Your task to perform on an android device: Show me popular videos on Youtube Image 0: 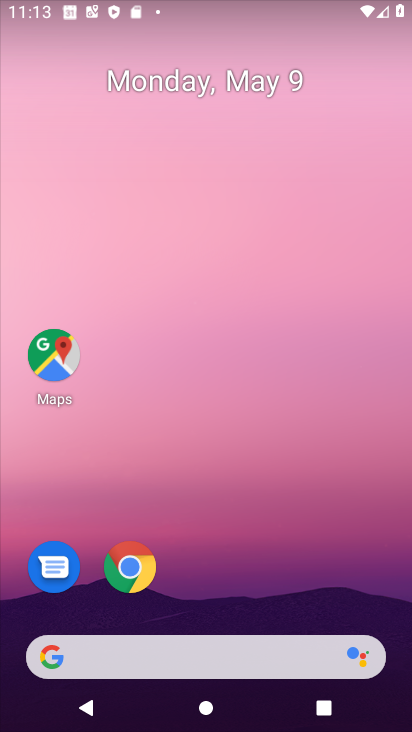
Step 0: drag from (208, 640) to (181, 122)
Your task to perform on an android device: Show me popular videos on Youtube Image 1: 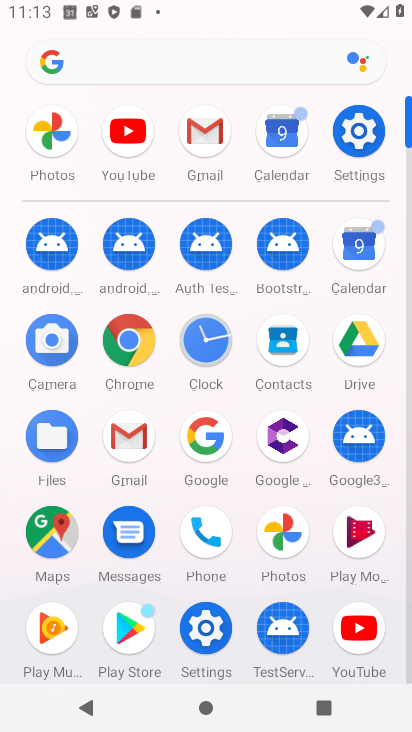
Step 1: click (359, 619)
Your task to perform on an android device: Show me popular videos on Youtube Image 2: 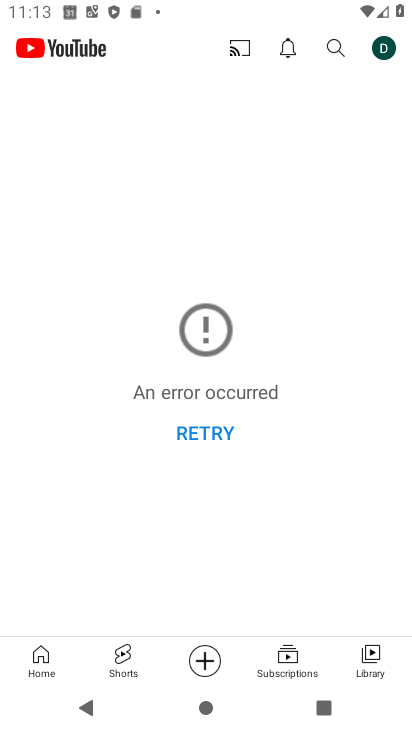
Step 2: click (45, 665)
Your task to perform on an android device: Show me popular videos on Youtube Image 3: 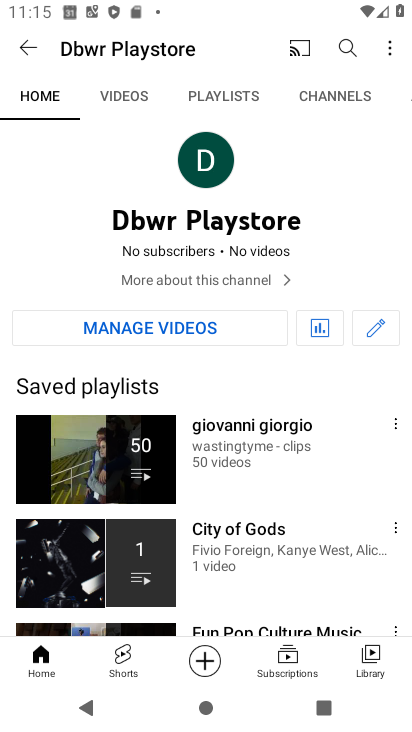
Step 3: task complete